Your task to perform on an android device: check google app version Image 0: 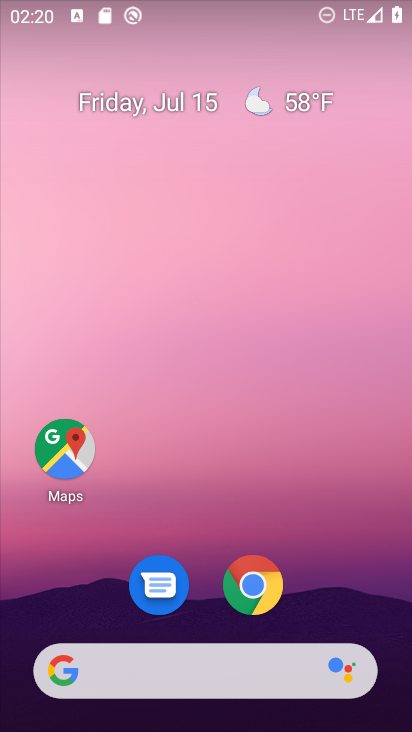
Step 0: click (188, 682)
Your task to perform on an android device: check google app version Image 1: 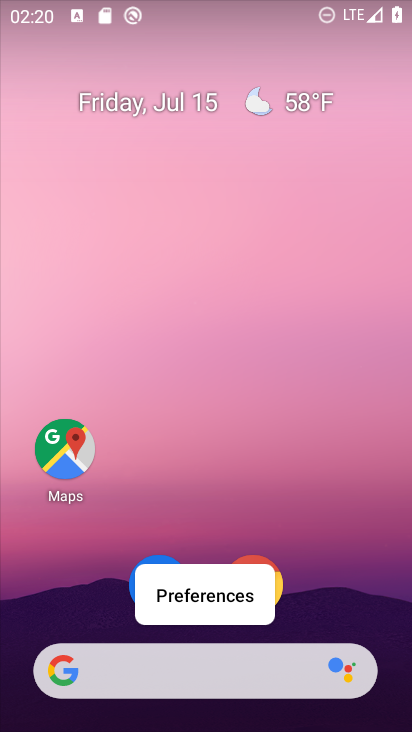
Step 1: click (191, 677)
Your task to perform on an android device: check google app version Image 2: 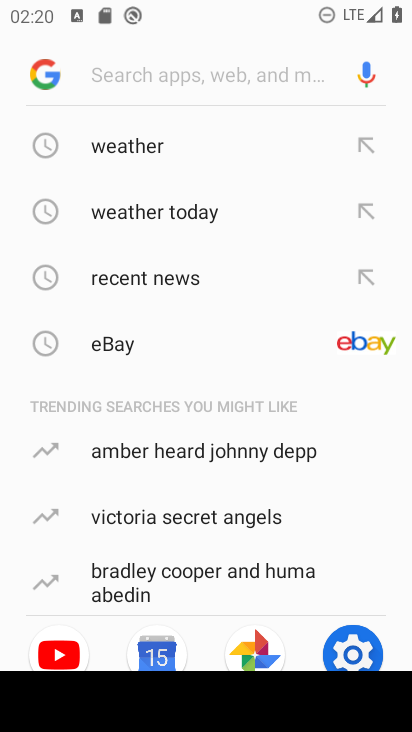
Step 2: click (39, 68)
Your task to perform on an android device: check google app version Image 3: 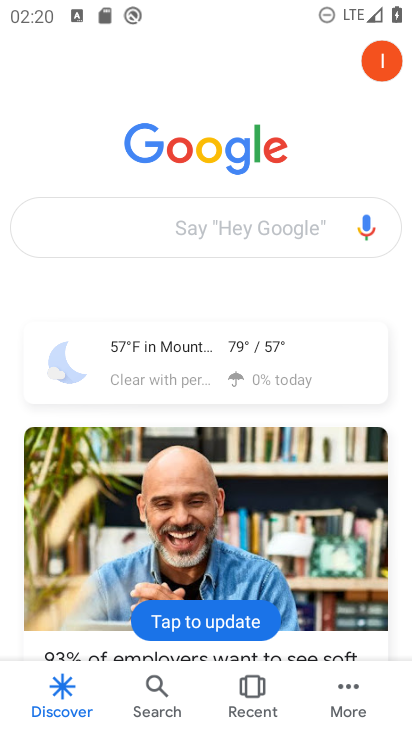
Step 3: click (354, 685)
Your task to perform on an android device: check google app version Image 4: 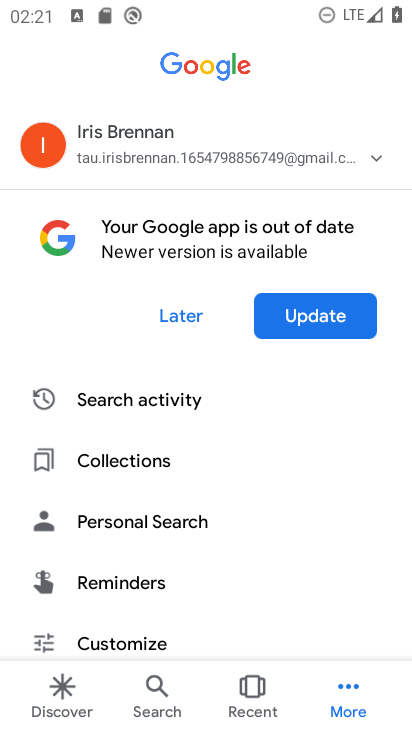
Step 4: drag from (245, 603) to (254, 343)
Your task to perform on an android device: check google app version Image 5: 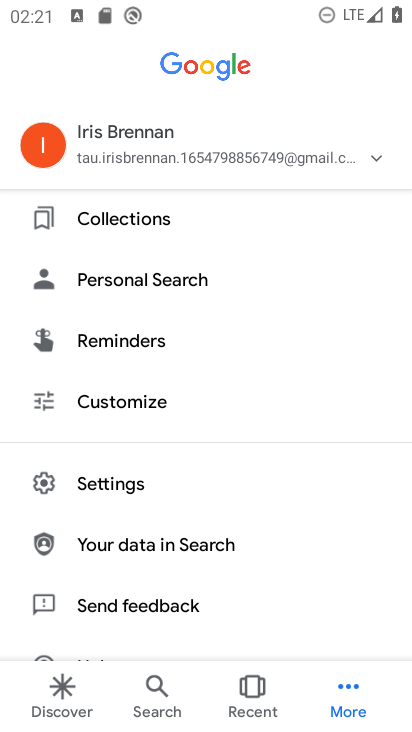
Step 5: click (129, 476)
Your task to perform on an android device: check google app version Image 6: 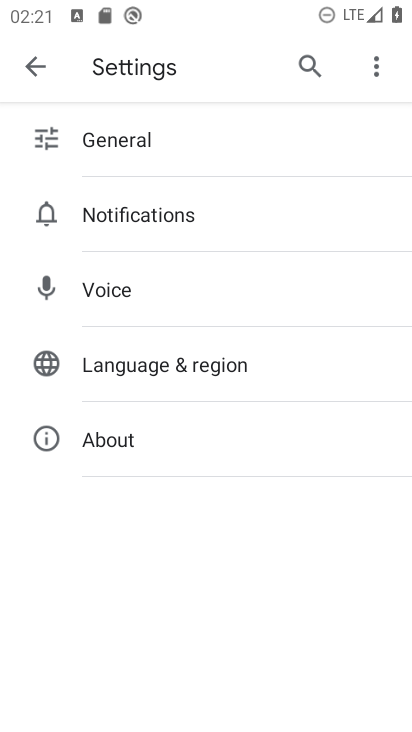
Step 6: click (97, 434)
Your task to perform on an android device: check google app version Image 7: 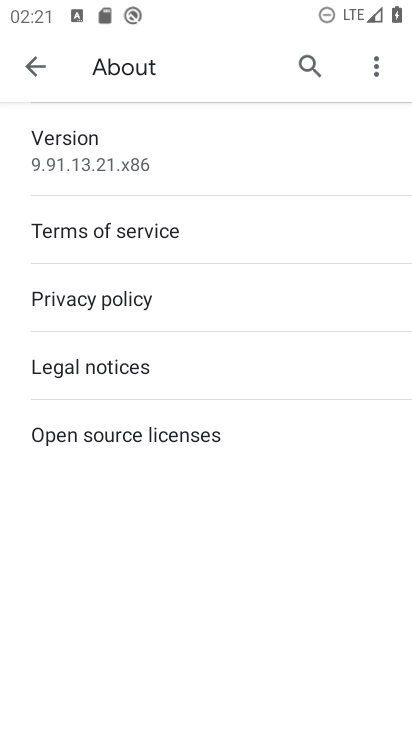
Step 7: task complete